Your task to perform on an android device: Show me popular videos on Youtube Image 0: 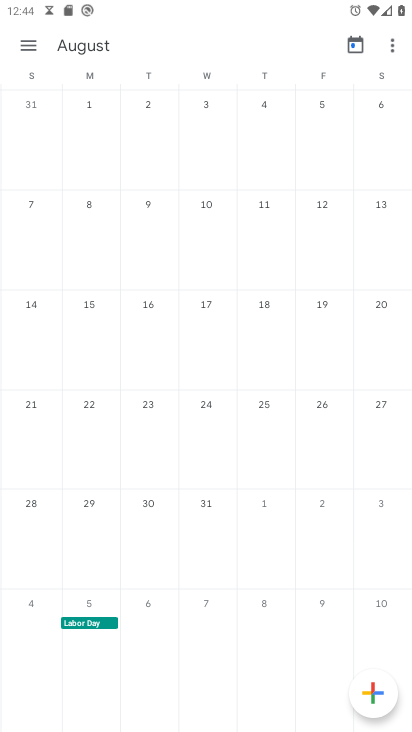
Step 0: press home button
Your task to perform on an android device: Show me popular videos on Youtube Image 1: 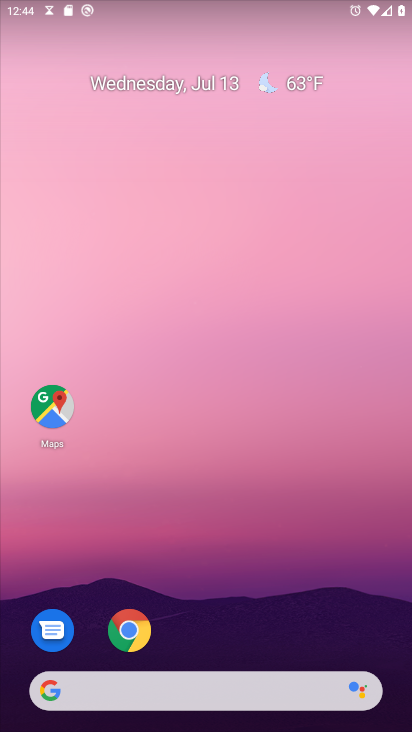
Step 1: drag from (213, 687) to (163, 251)
Your task to perform on an android device: Show me popular videos on Youtube Image 2: 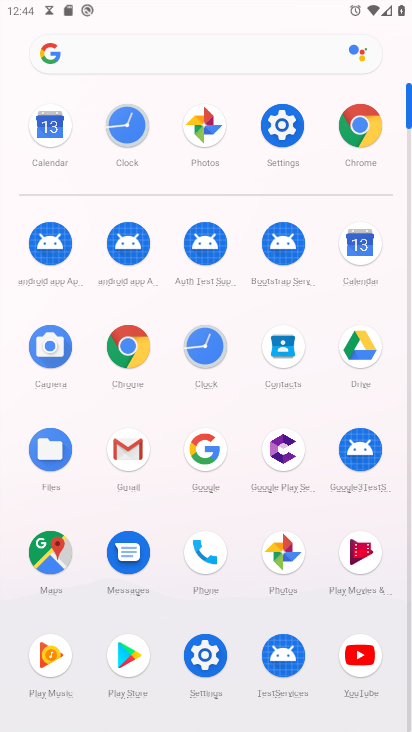
Step 2: click (346, 652)
Your task to perform on an android device: Show me popular videos on Youtube Image 3: 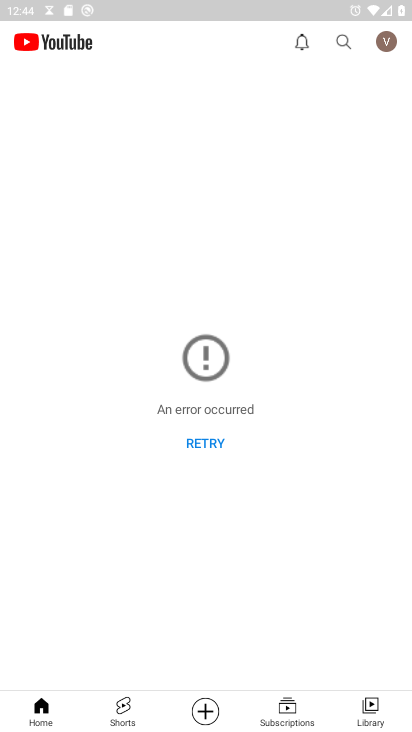
Step 3: click (193, 448)
Your task to perform on an android device: Show me popular videos on Youtube Image 4: 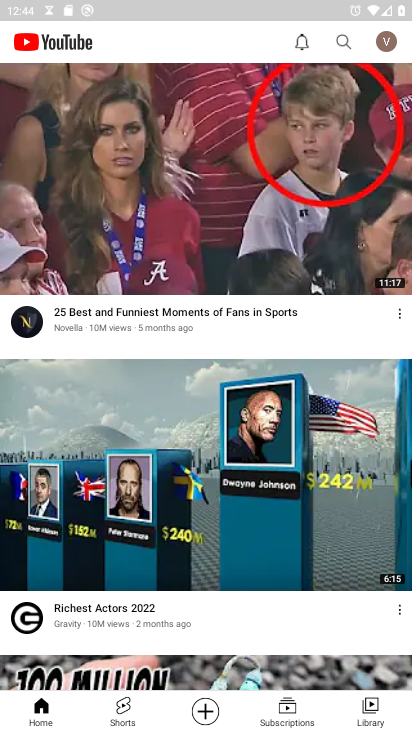
Step 4: drag from (53, 75) to (62, 237)
Your task to perform on an android device: Show me popular videos on Youtube Image 5: 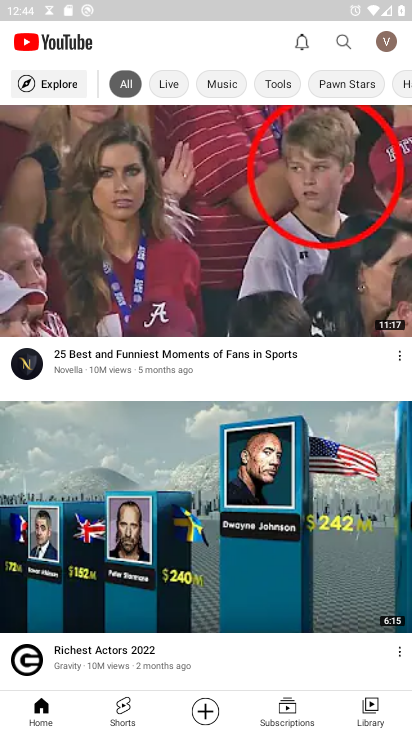
Step 5: click (47, 82)
Your task to perform on an android device: Show me popular videos on Youtube Image 6: 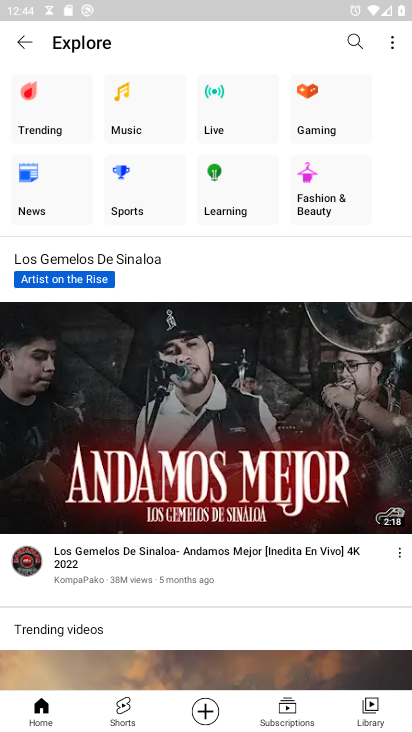
Step 6: click (50, 116)
Your task to perform on an android device: Show me popular videos on Youtube Image 7: 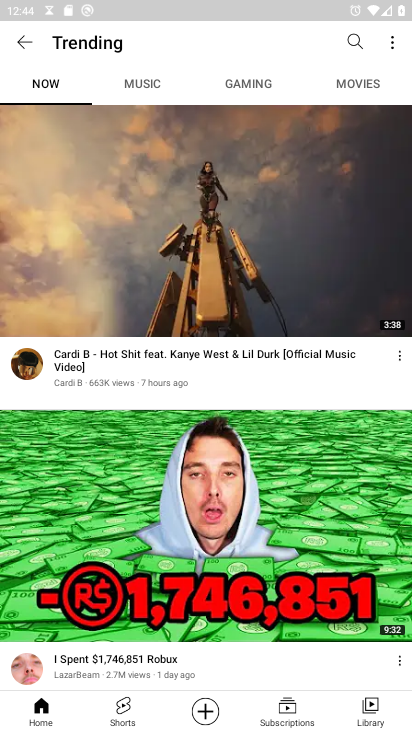
Step 7: task complete